Your task to perform on an android device: Go to notification settings Image 0: 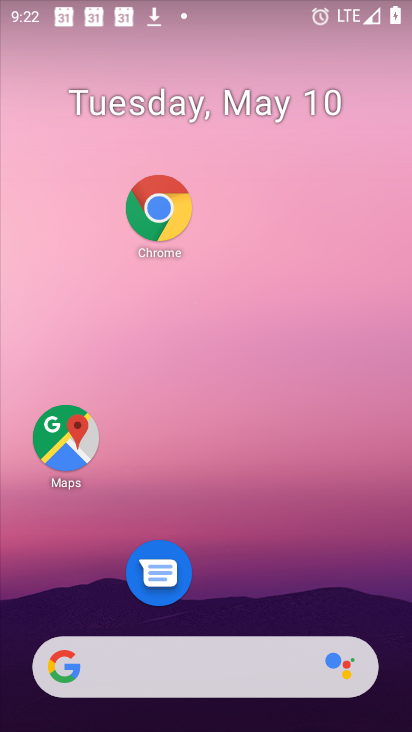
Step 0: drag from (304, 672) to (333, 229)
Your task to perform on an android device: Go to notification settings Image 1: 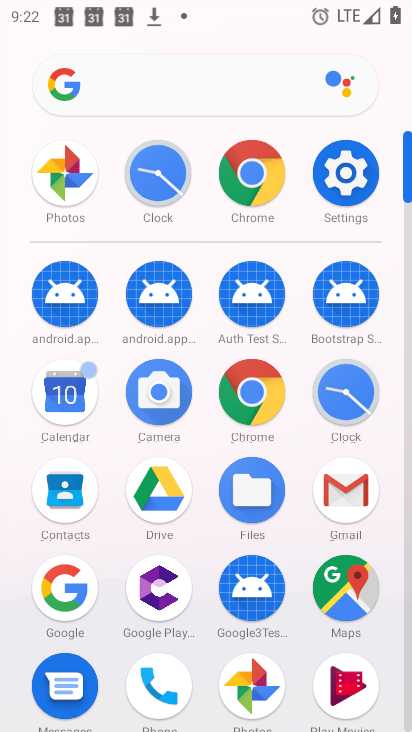
Step 1: click (341, 180)
Your task to perform on an android device: Go to notification settings Image 2: 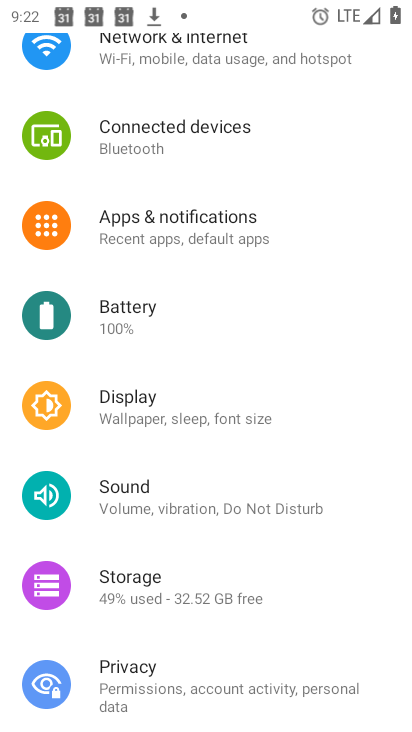
Step 2: drag from (232, 212) to (233, 311)
Your task to perform on an android device: Go to notification settings Image 3: 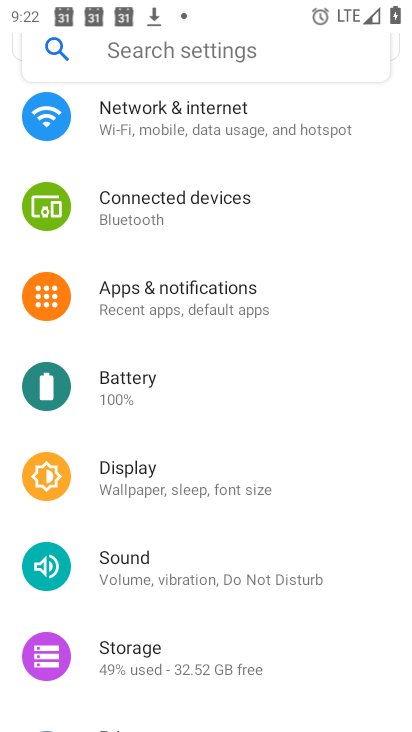
Step 3: click (149, 66)
Your task to perform on an android device: Go to notification settings Image 4: 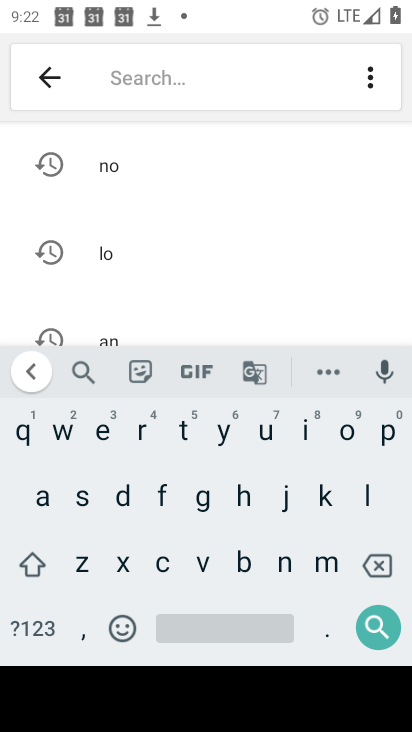
Step 4: click (277, 564)
Your task to perform on an android device: Go to notification settings Image 5: 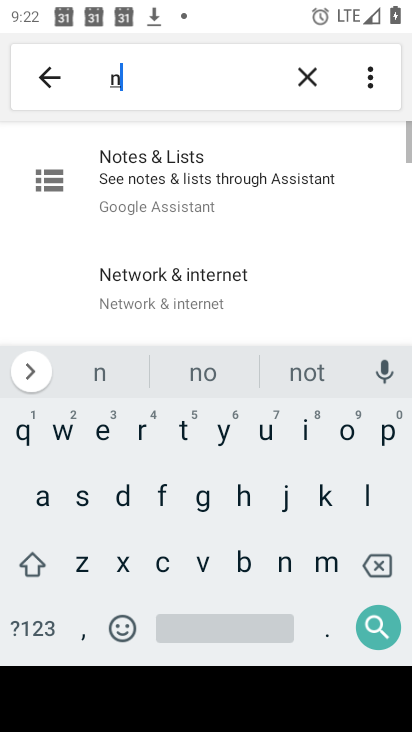
Step 5: click (345, 440)
Your task to perform on an android device: Go to notification settings Image 6: 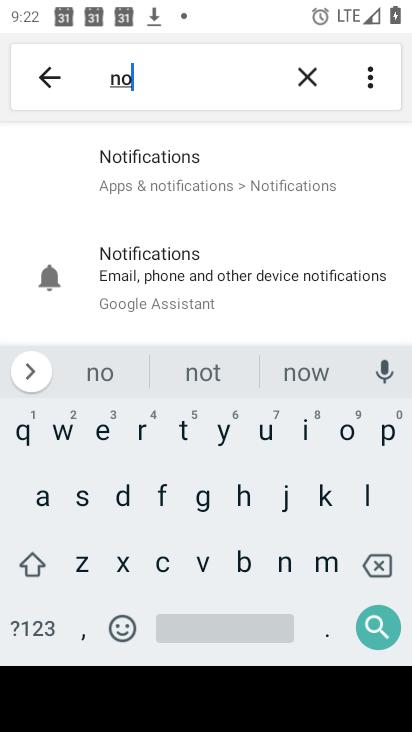
Step 6: click (211, 188)
Your task to perform on an android device: Go to notification settings Image 7: 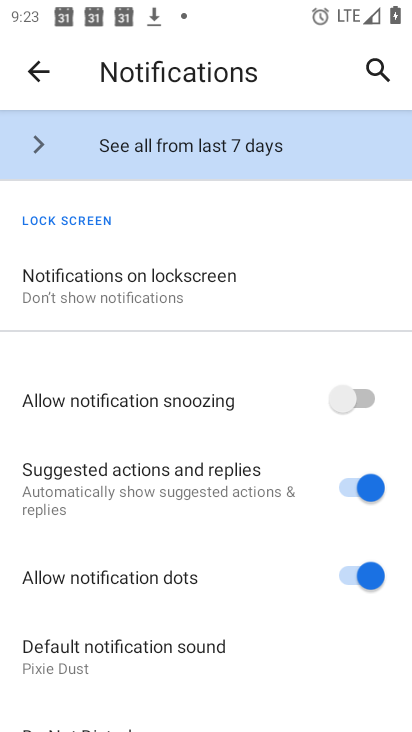
Step 7: click (138, 270)
Your task to perform on an android device: Go to notification settings Image 8: 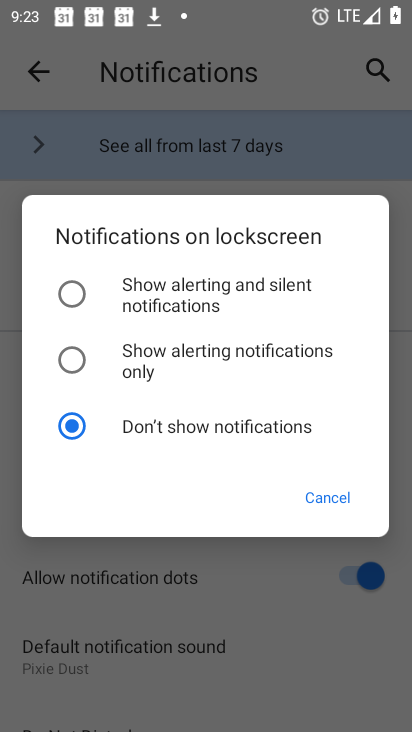
Step 8: task complete